Your task to perform on an android device: Is it going to rain today? Image 0: 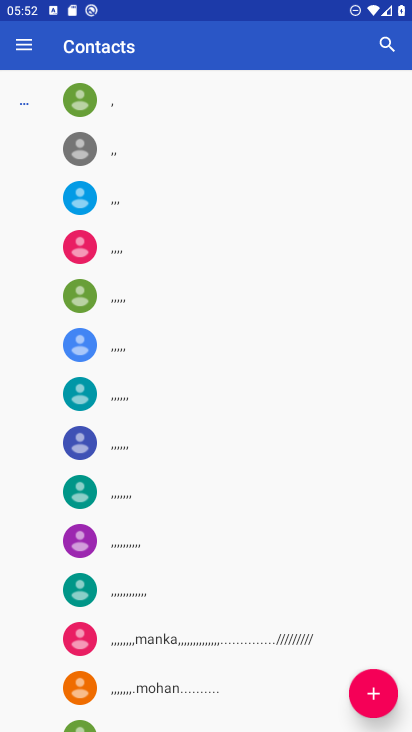
Step 0: press home button
Your task to perform on an android device: Is it going to rain today? Image 1: 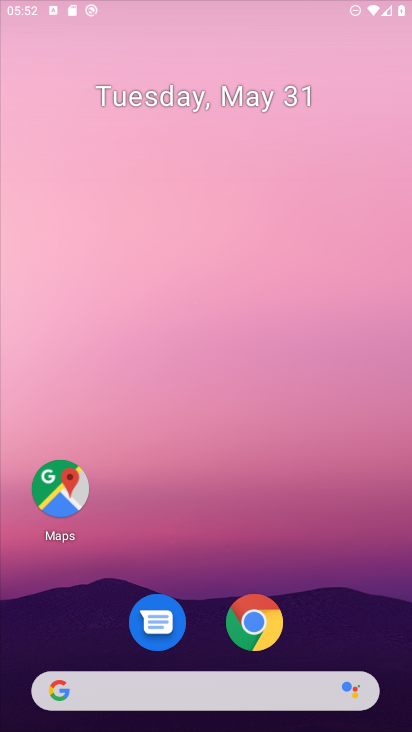
Step 1: drag from (186, 676) to (186, 610)
Your task to perform on an android device: Is it going to rain today? Image 2: 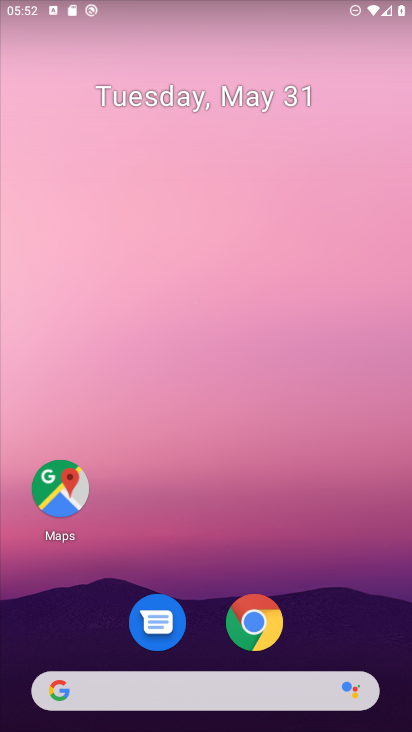
Step 2: drag from (37, 261) to (410, 252)
Your task to perform on an android device: Is it going to rain today? Image 3: 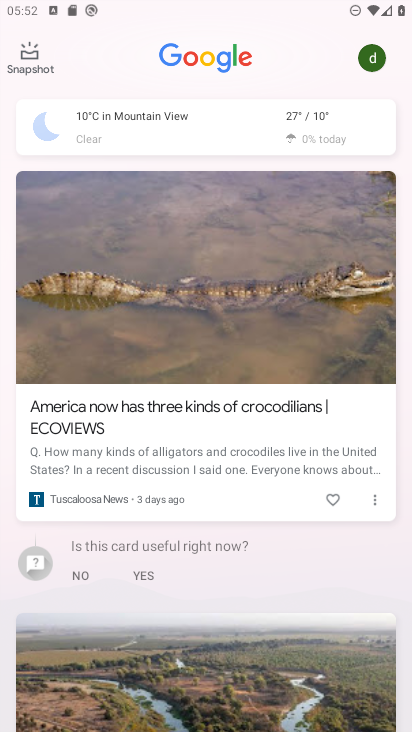
Step 3: click (162, 125)
Your task to perform on an android device: Is it going to rain today? Image 4: 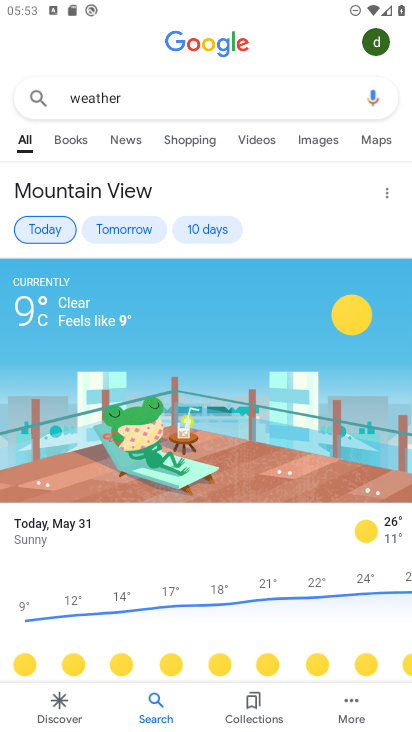
Step 4: task complete